Your task to perform on an android device: turn on the 12-hour format for clock Image 0: 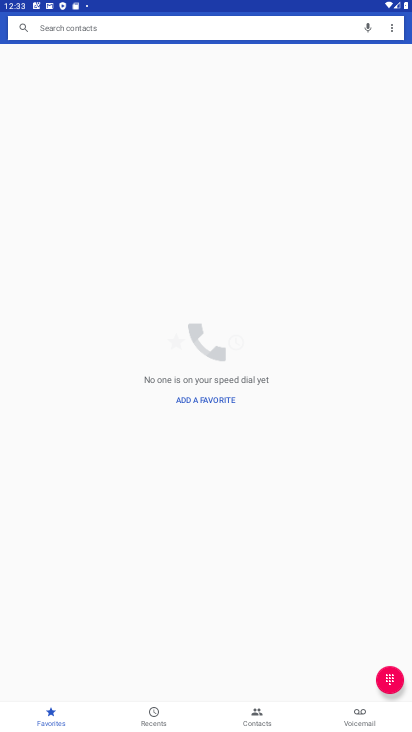
Step 0: press home button
Your task to perform on an android device: turn on the 12-hour format for clock Image 1: 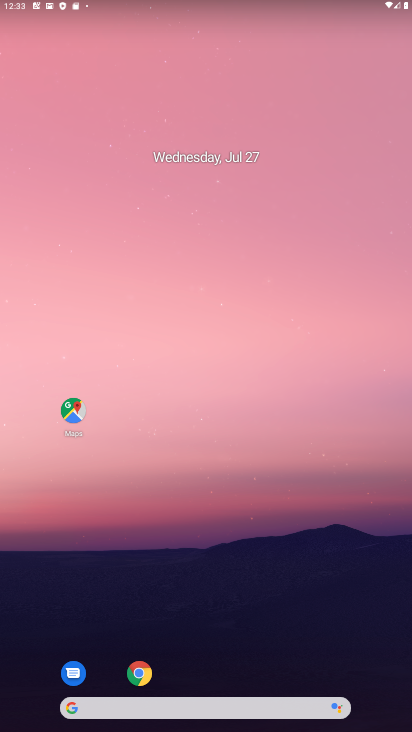
Step 1: drag from (213, 675) to (234, 268)
Your task to perform on an android device: turn on the 12-hour format for clock Image 2: 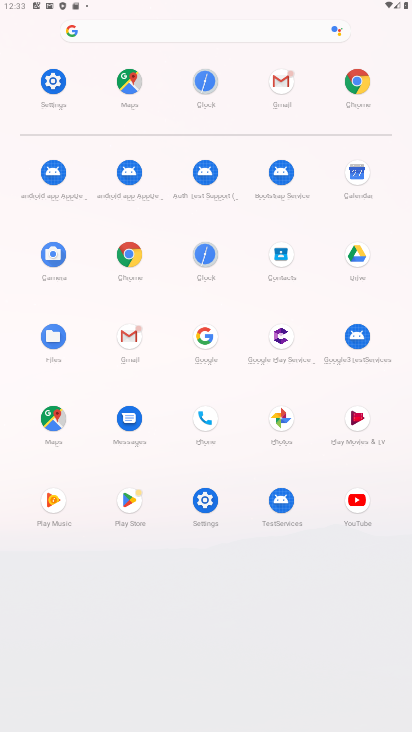
Step 2: click (202, 254)
Your task to perform on an android device: turn on the 12-hour format for clock Image 3: 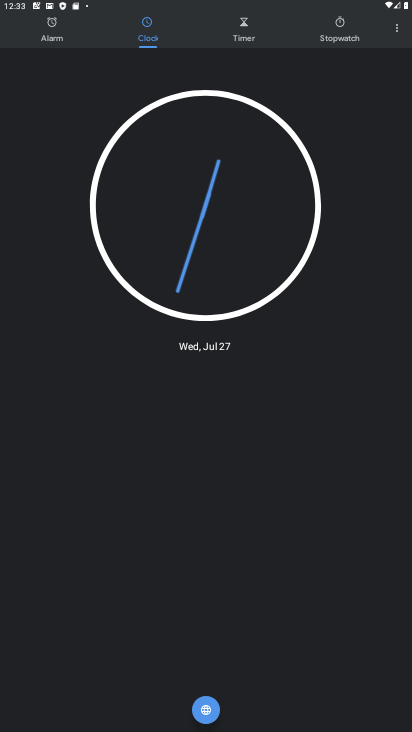
Step 3: click (403, 26)
Your task to perform on an android device: turn on the 12-hour format for clock Image 4: 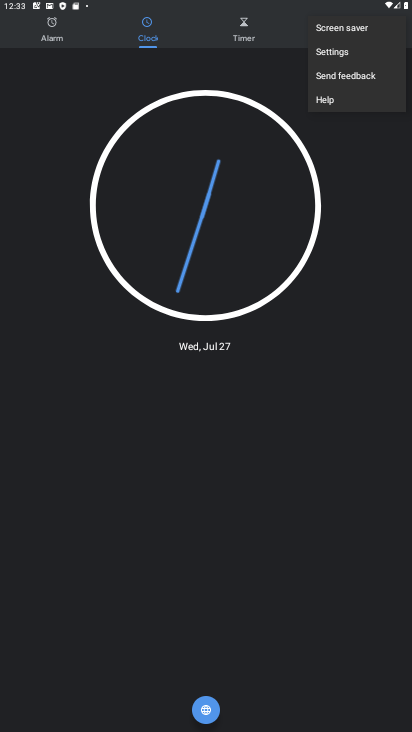
Step 4: click (357, 47)
Your task to perform on an android device: turn on the 12-hour format for clock Image 5: 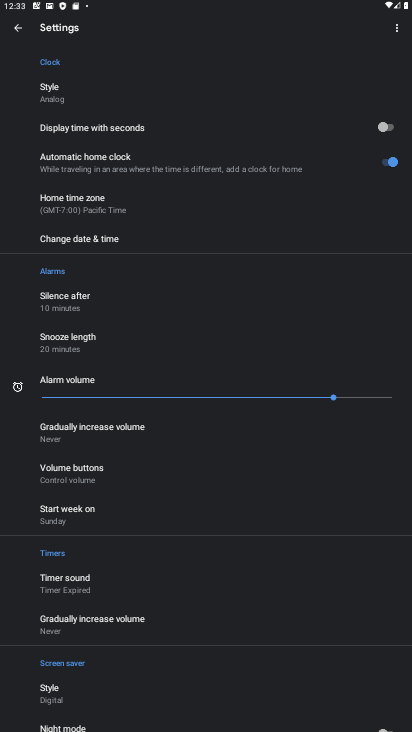
Step 5: click (95, 238)
Your task to perform on an android device: turn on the 12-hour format for clock Image 6: 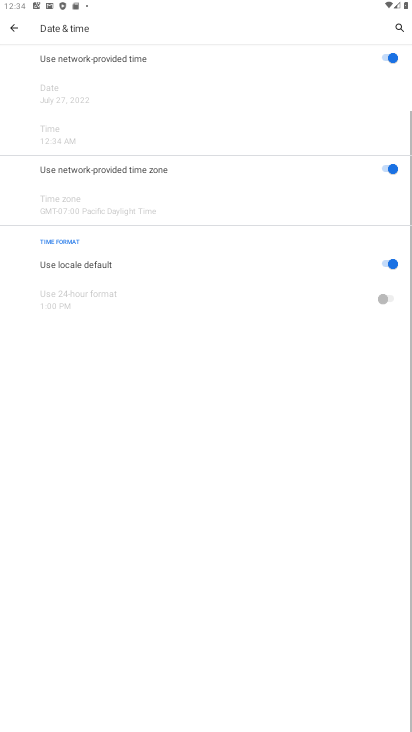
Step 6: click (383, 266)
Your task to perform on an android device: turn on the 12-hour format for clock Image 7: 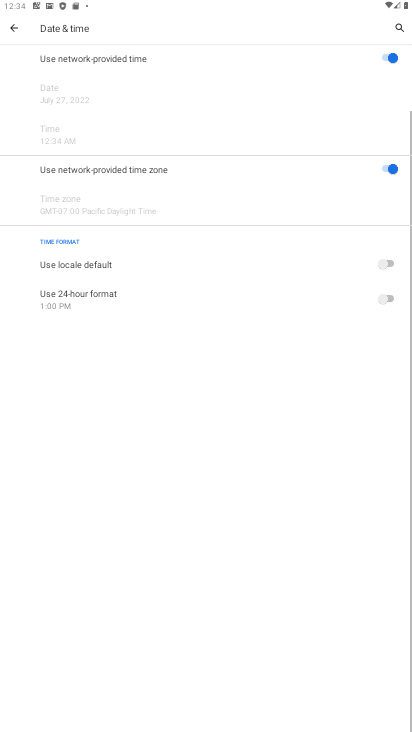
Step 7: click (379, 287)
Your task to perform on an android device: turn on the 12-hour format for clock Image 8: 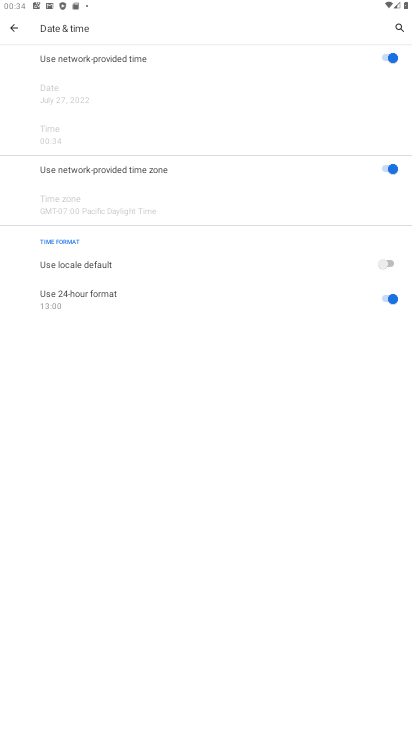
Step 8: task complete